Your task to perform on an android device: Go to ESPN.com Image 0: 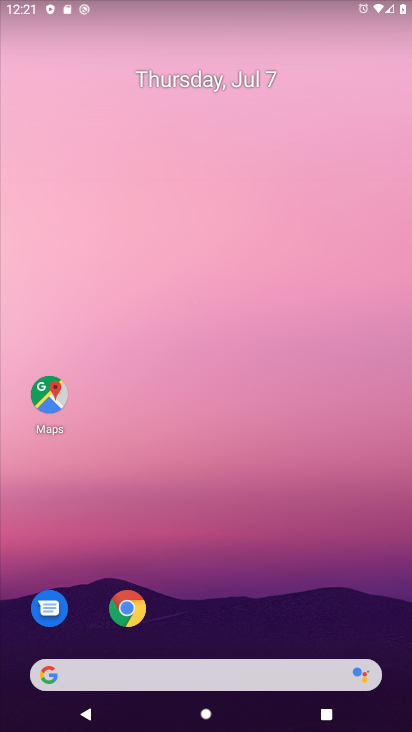
Step 0: click (115, 613)
Your task to perform on an android device: Go to ESPN.com Image 1: 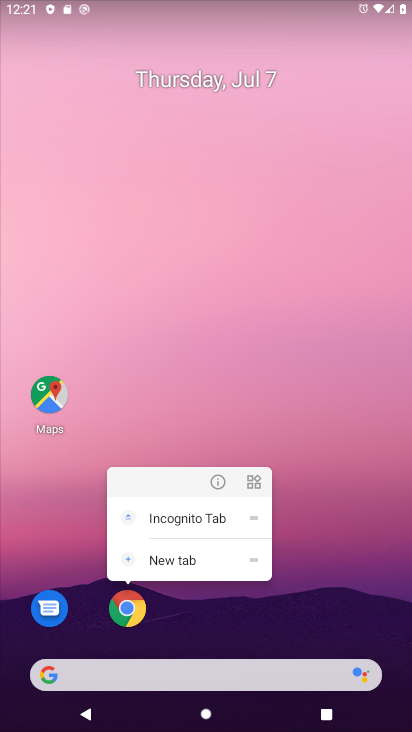
Step 1: click (123, 607)
Your task to perform on an android device: Go to ESPN.com Image 2: 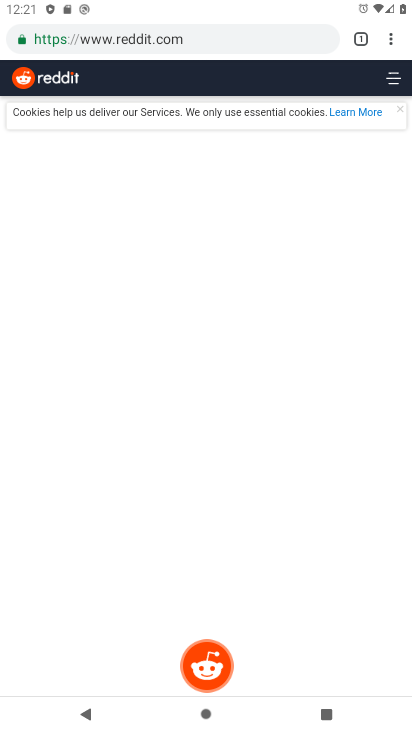
Step 2: click (361, 37)
Your task to perform on an android device: Go to ESPN.com Image 3: 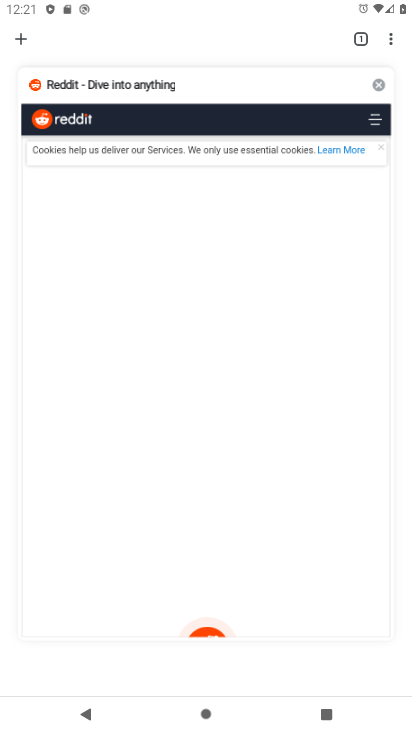
Step 3: click (17, 32)
Your task to perform on an android device: Go to ESPN.com Image 4: 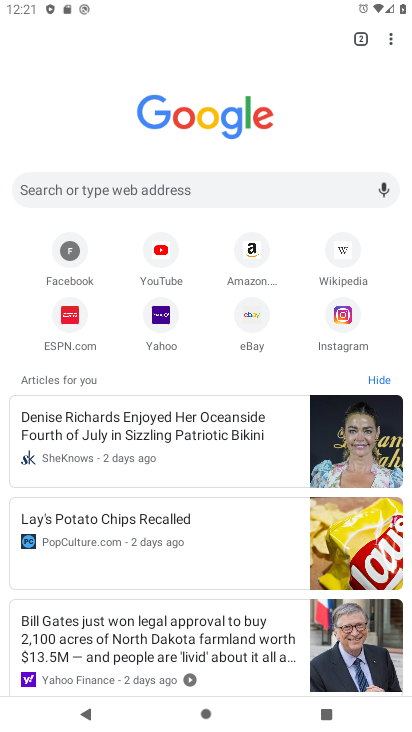
Step 4: click (81, 330)
Your task to perform on an android device: Go to ESPN.com Image 5: 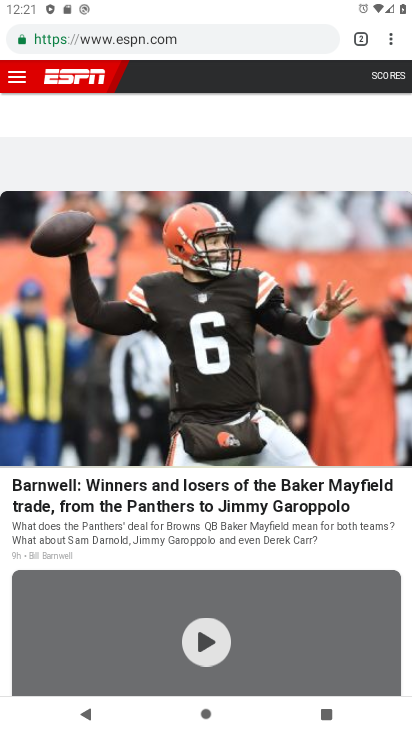
Step 5: task complete